Your task to perform on an android device: Open Wikipedia Image 0: 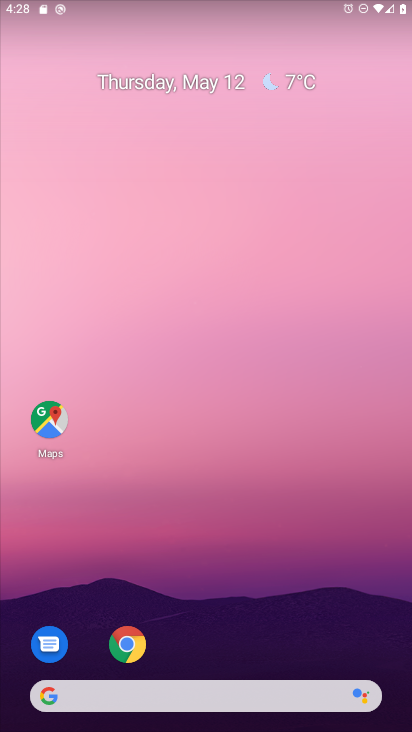
Step 0: click (132, 639)
Your task to perform on an android device: Open Wikipedia Image 1: 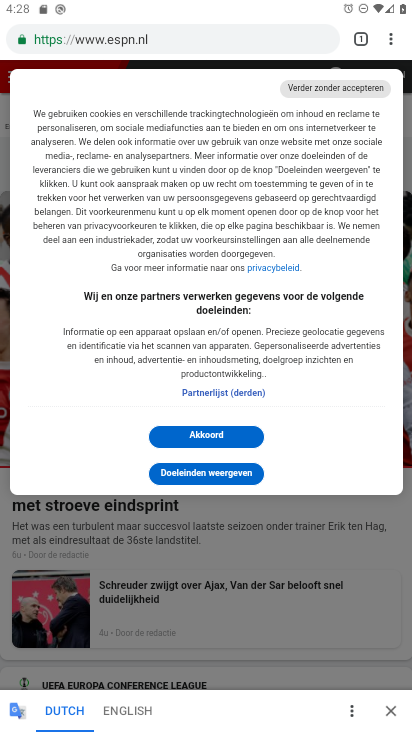
Step 1: click (168, 32)
Your task to perform on an android device: Open Wikipedia Image 2: 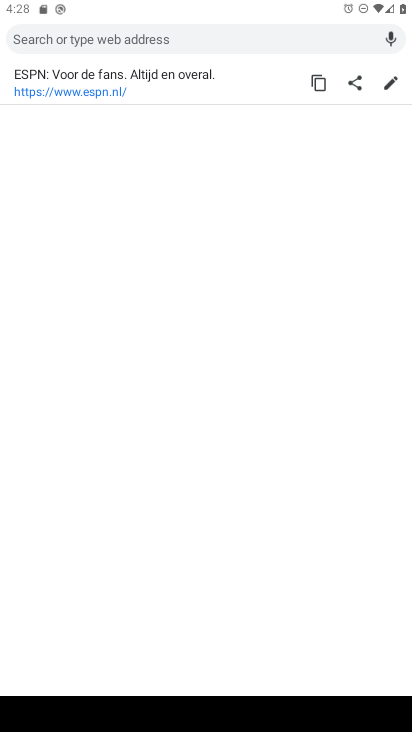
Step 2: type "wikipedia"
Your task to perform on an android device: Open Wikipedia Image 3: 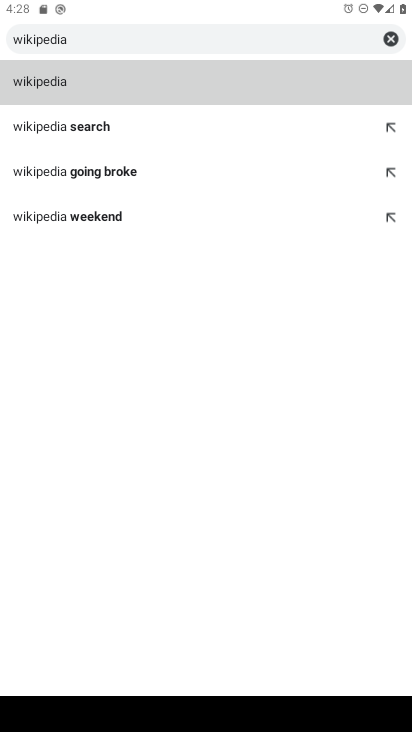
Step 3: click (98, 97)
Your task to perform on an android device: Open Wikipedia Image 4: 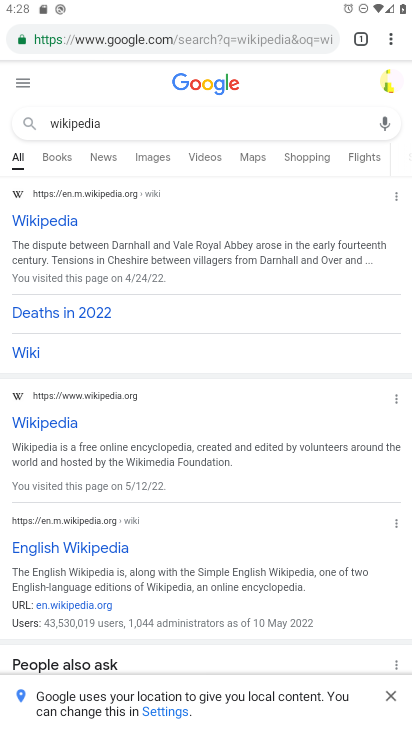
Step 4: task complete